Your task to perform on an android device: turn on bluetooth scan Image 0: 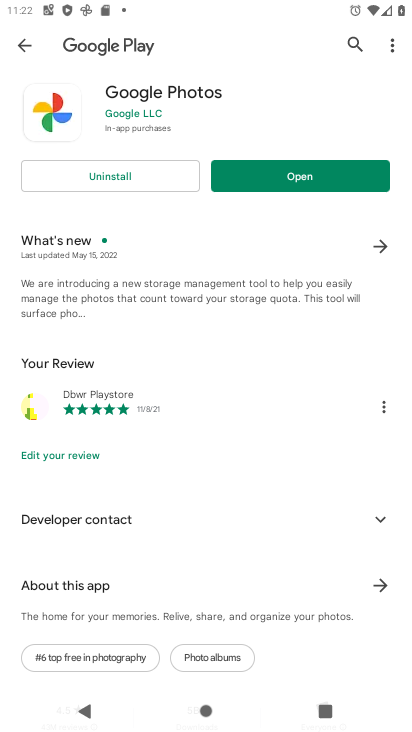
Step 0: press home button
Your task to perform on an android device: turn on bluetooth scan Image 1: 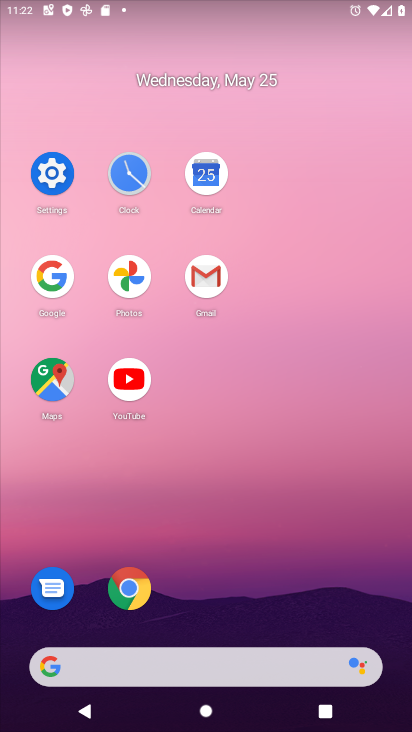
Step 1: click (48, 174)
Your task to perform on an android device: turn on bluetooth scan Image 2: 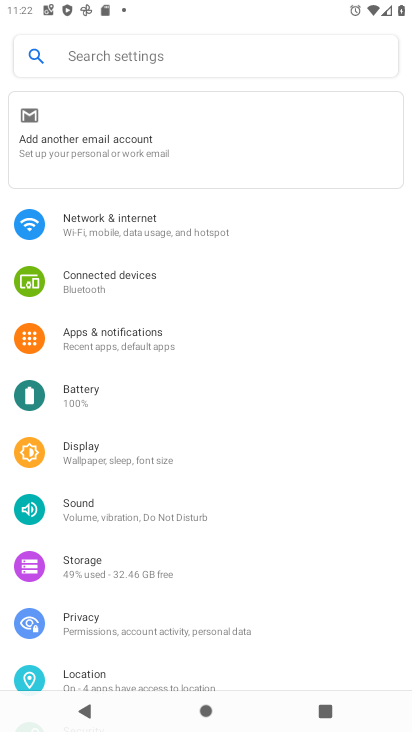
Step 2: click (194, 670)
Your task to perform on an android device: turn on bluetooth scan Image 3: 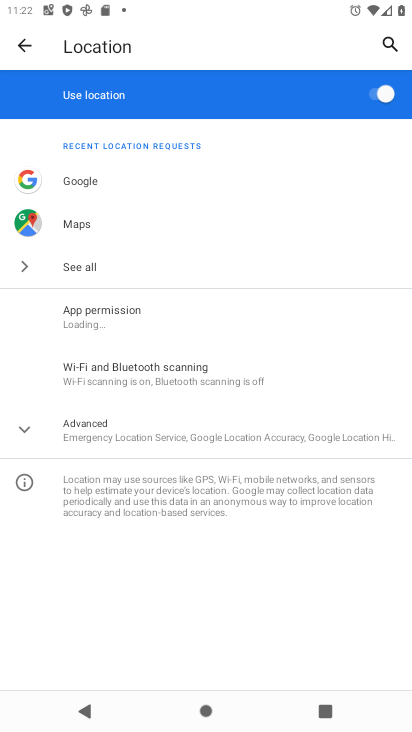
Step 3: click (221, 382)
Your task to perform on an android device: turn on bluetooth scan Image 4: 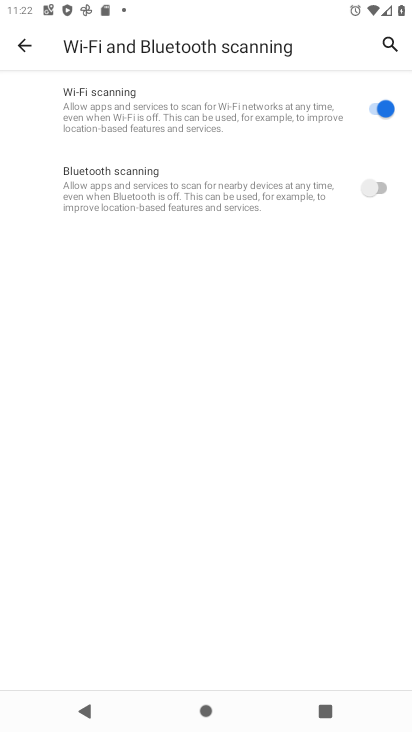
Step 4: click (370, 190)
Your task to perform on an android device: turn on bluetooth scan Image 5: 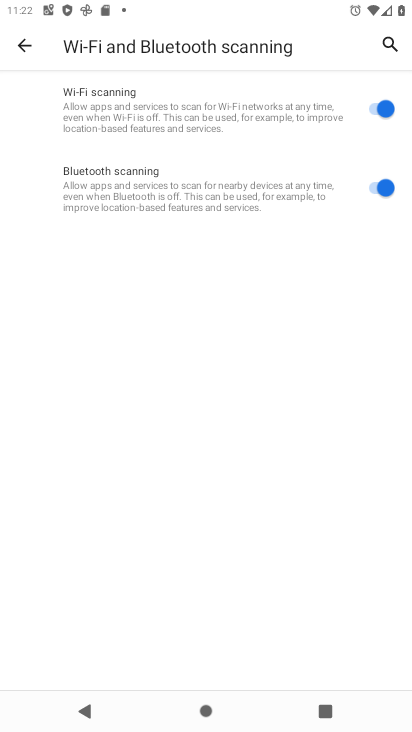
Step 5: task complete